Your task to perform on an android device: empty trash in google photos Image 0: 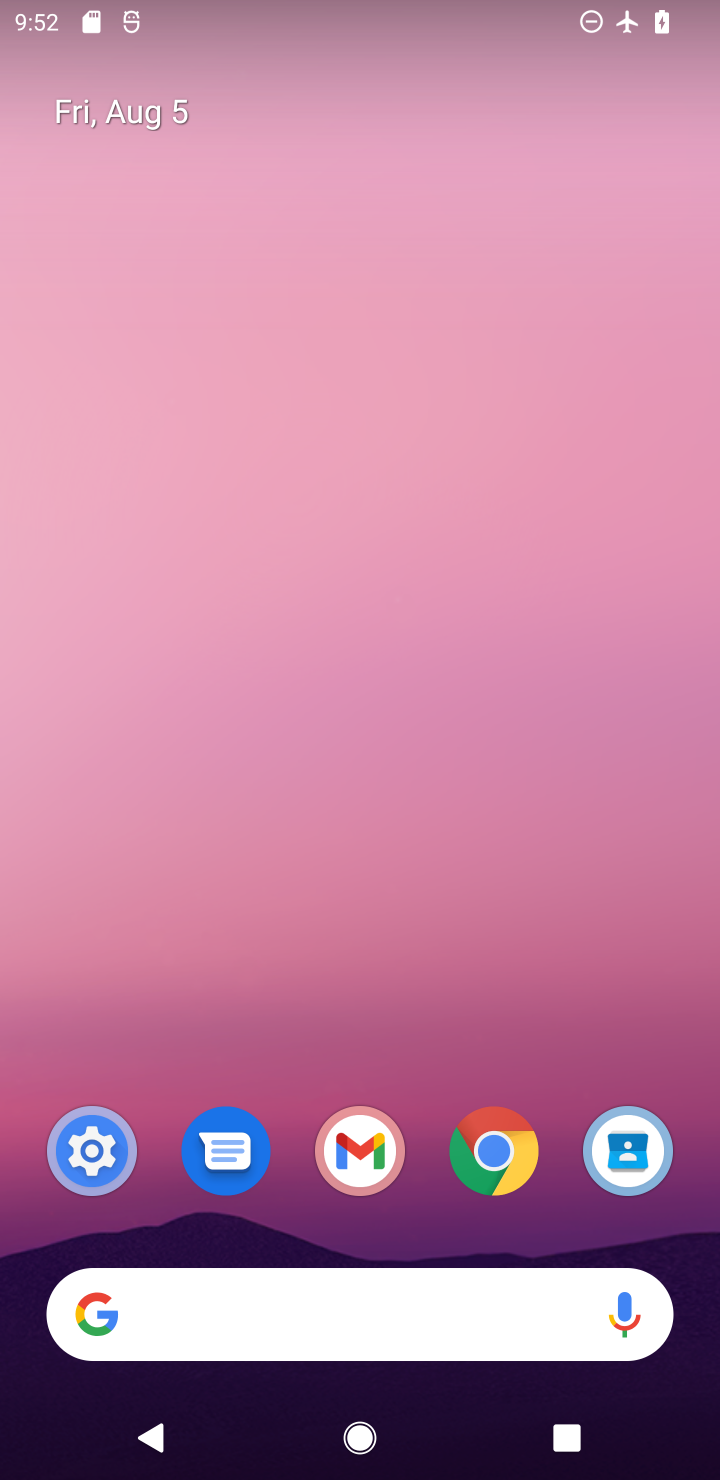
Step 0: drag from (275, 1131) to (310, 216)
Your task to perform on an android device: empty trash in google photos Image 1: 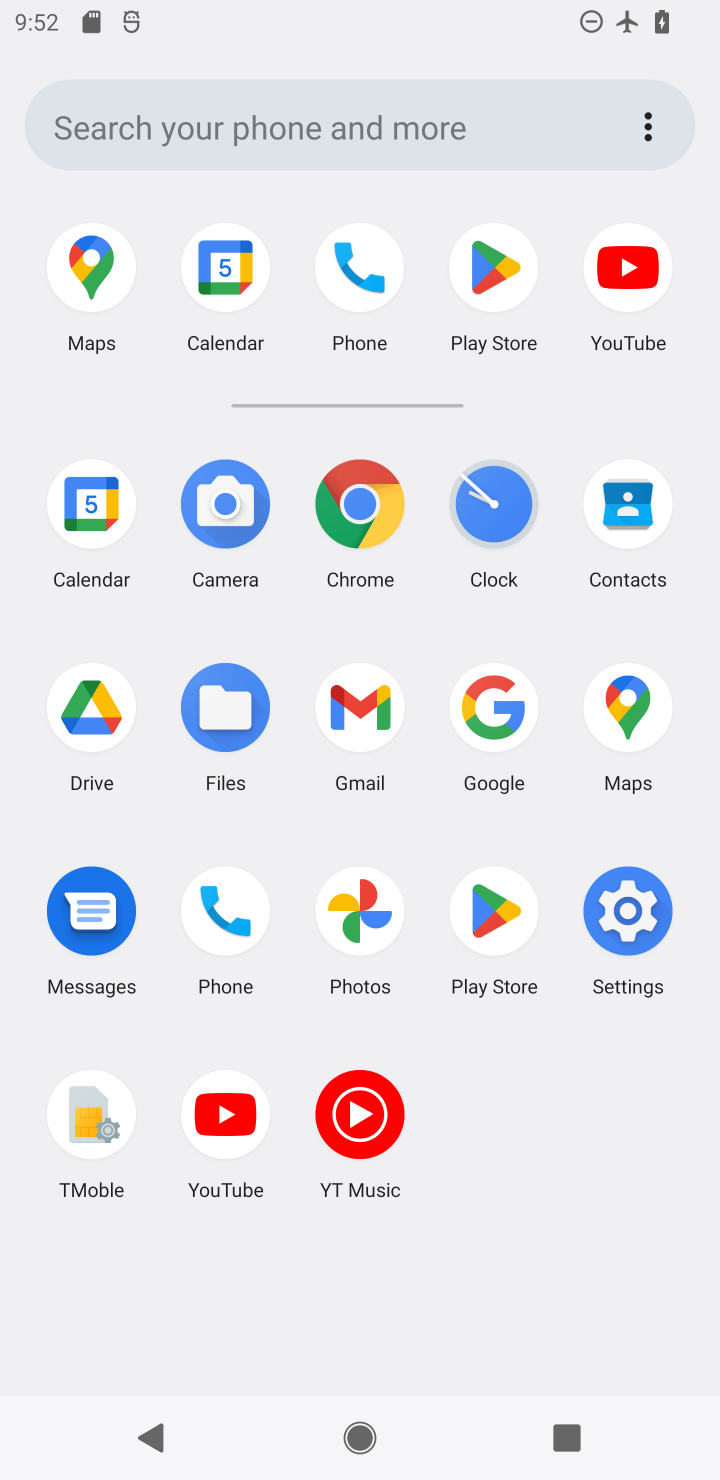
Step 1: click (364, 945)
Your task to perform on an android device: empty trash in google photos Image 2: 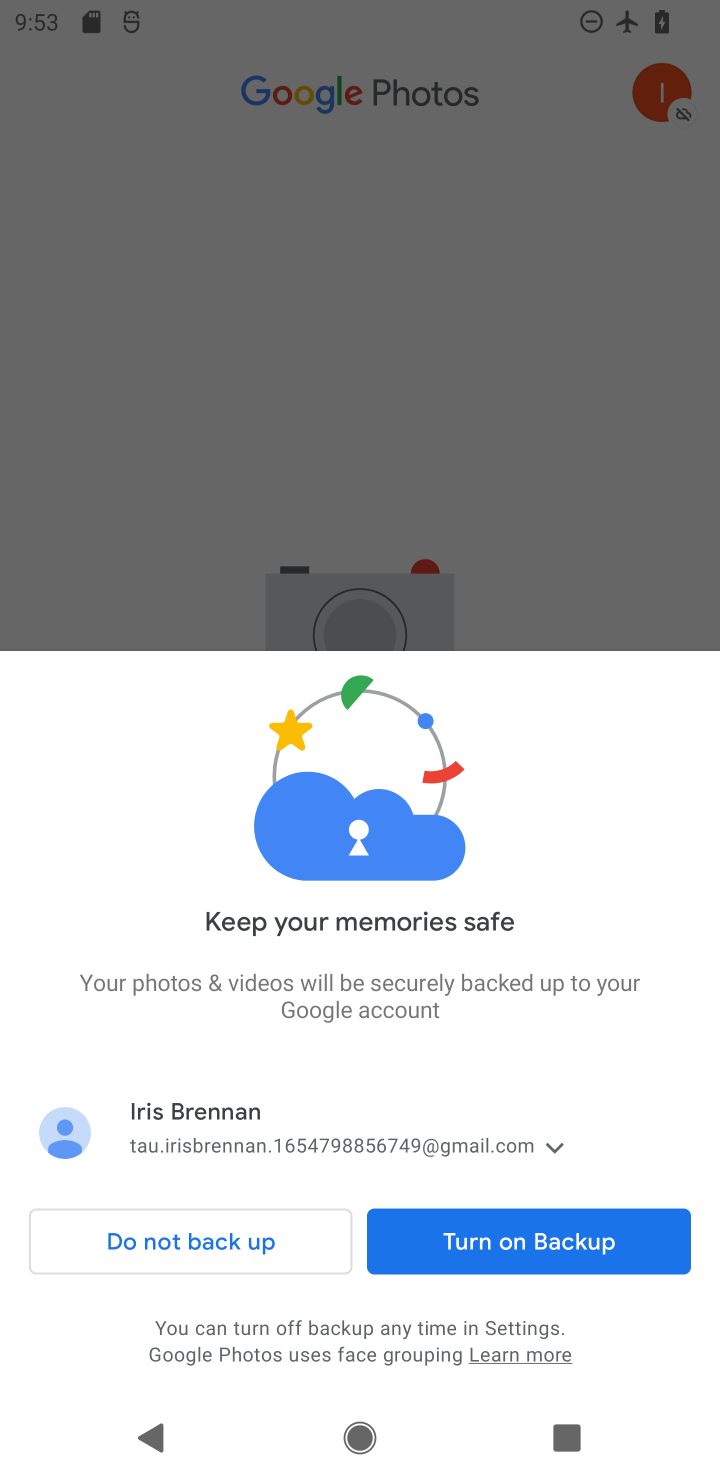
Step 2: click (537, 1237)
Your task to perform on an android device: empty trash in google photos Image 3: 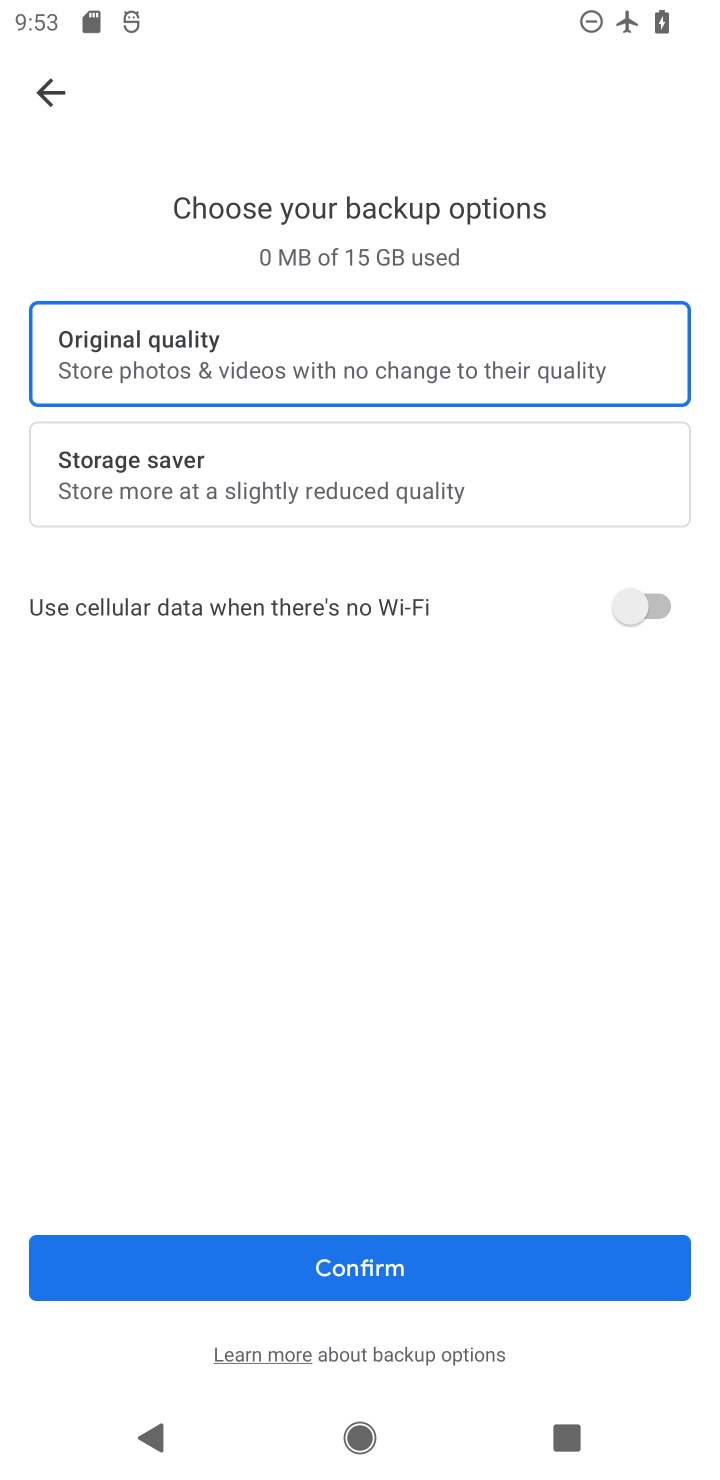
Step 3: click (454, 1239)
Your task to perform on an android device: empty trash in google photos Image 4: 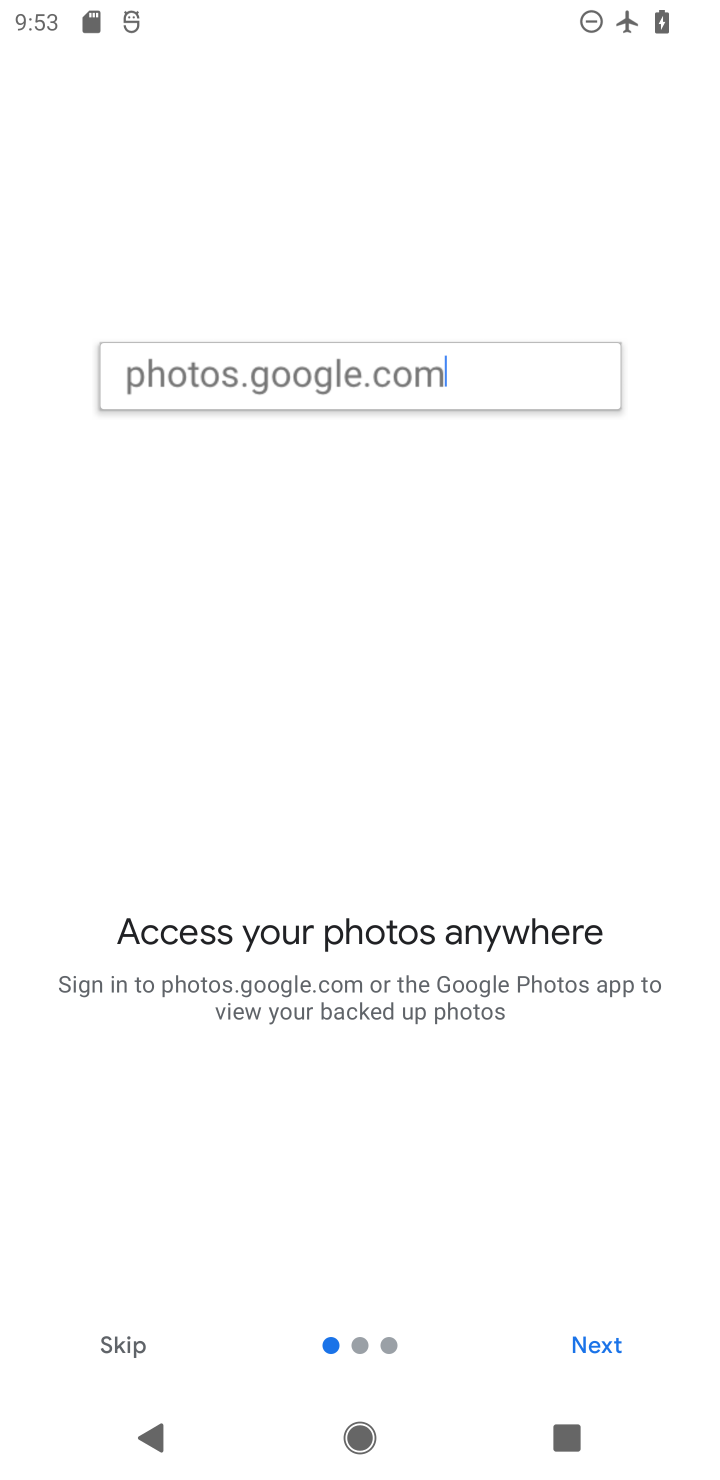
Step 4: click (592, 1344)
Your task to perform on an android device: empty trash in google photos Image 5: 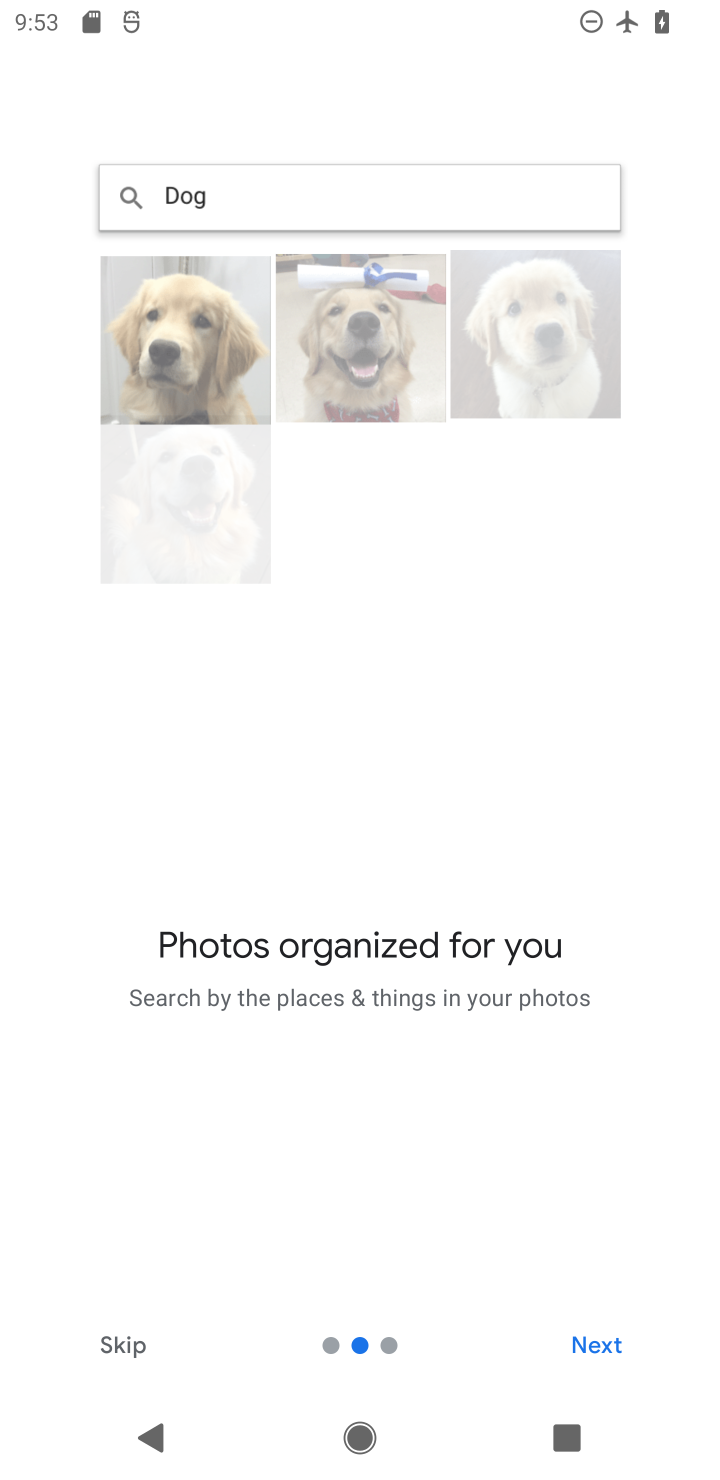
Step 5: click (592, 1344)
Your task to perform on an android device: empty trash in google photos Image 6: 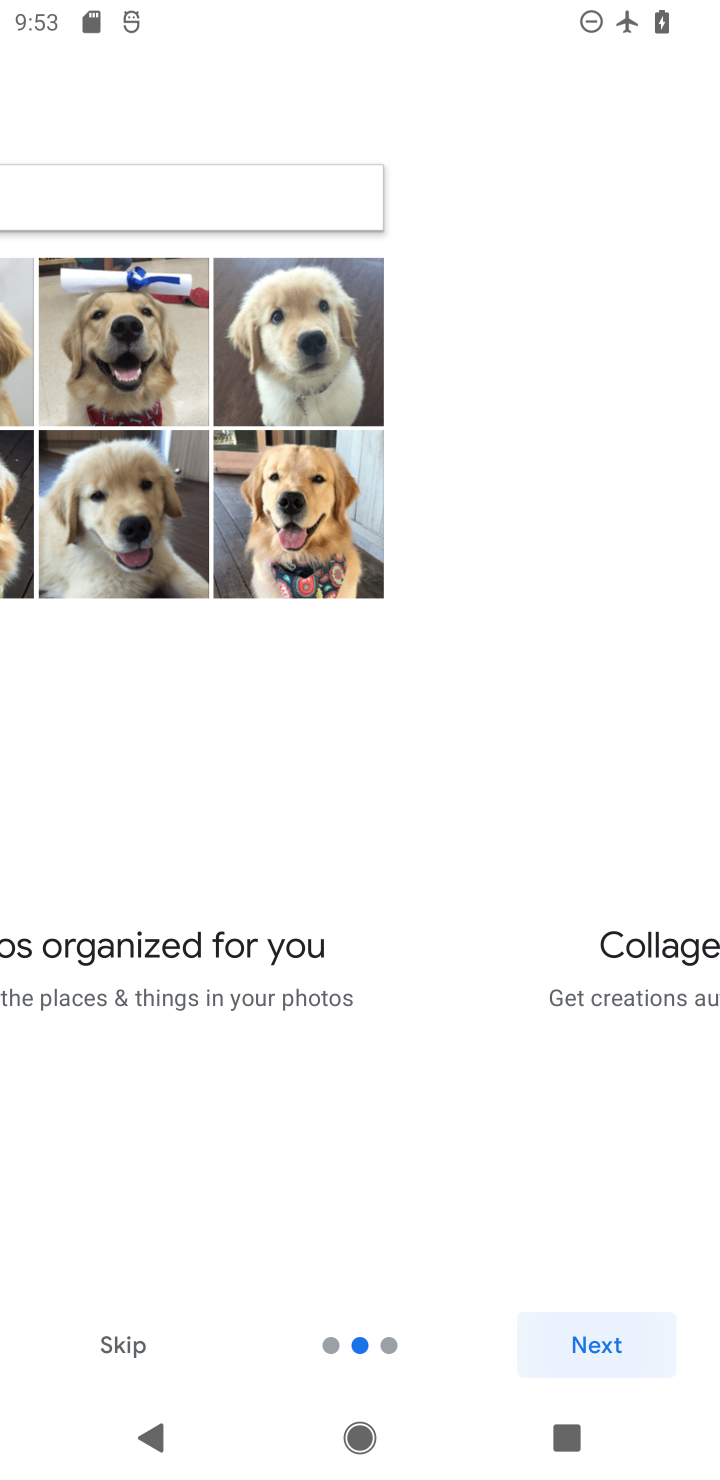
Step 6: click (592, 1344)
Your task to perform on an android device: empty trash in google photos Image 7: 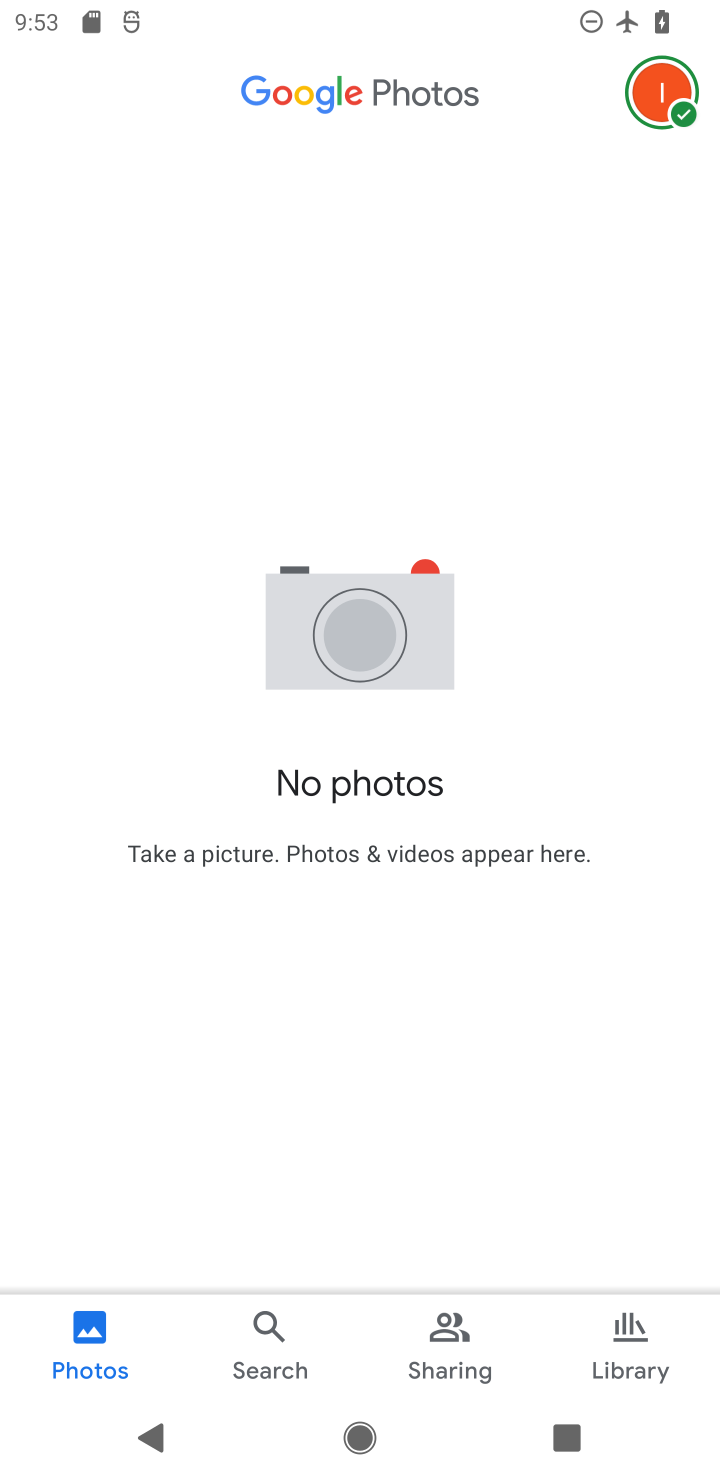
Step 7: click (592, 1344)
Your task to perform on an android device: empty trash in google photos Image 8: 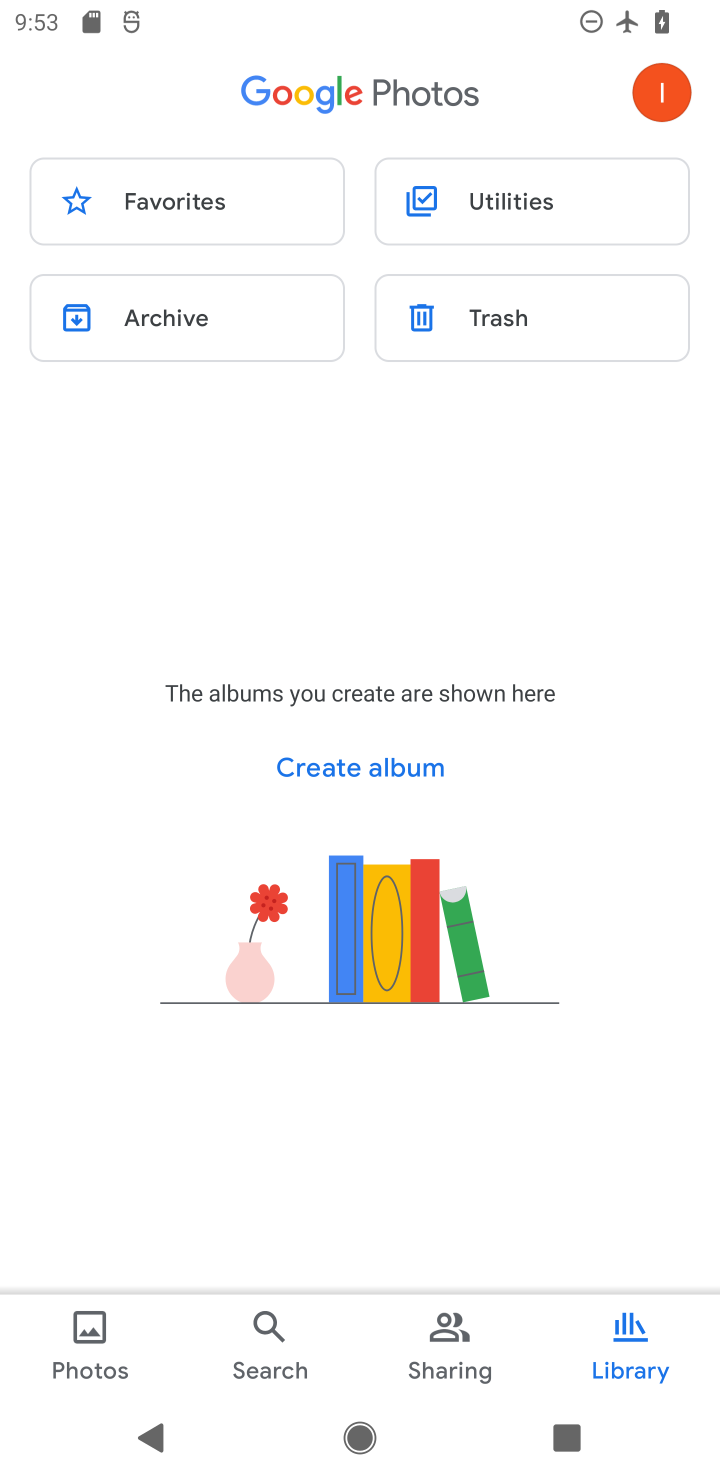
Step 8: click (82, 1349)
Your task to perform on an android device: empty trash in google photos Image 9: 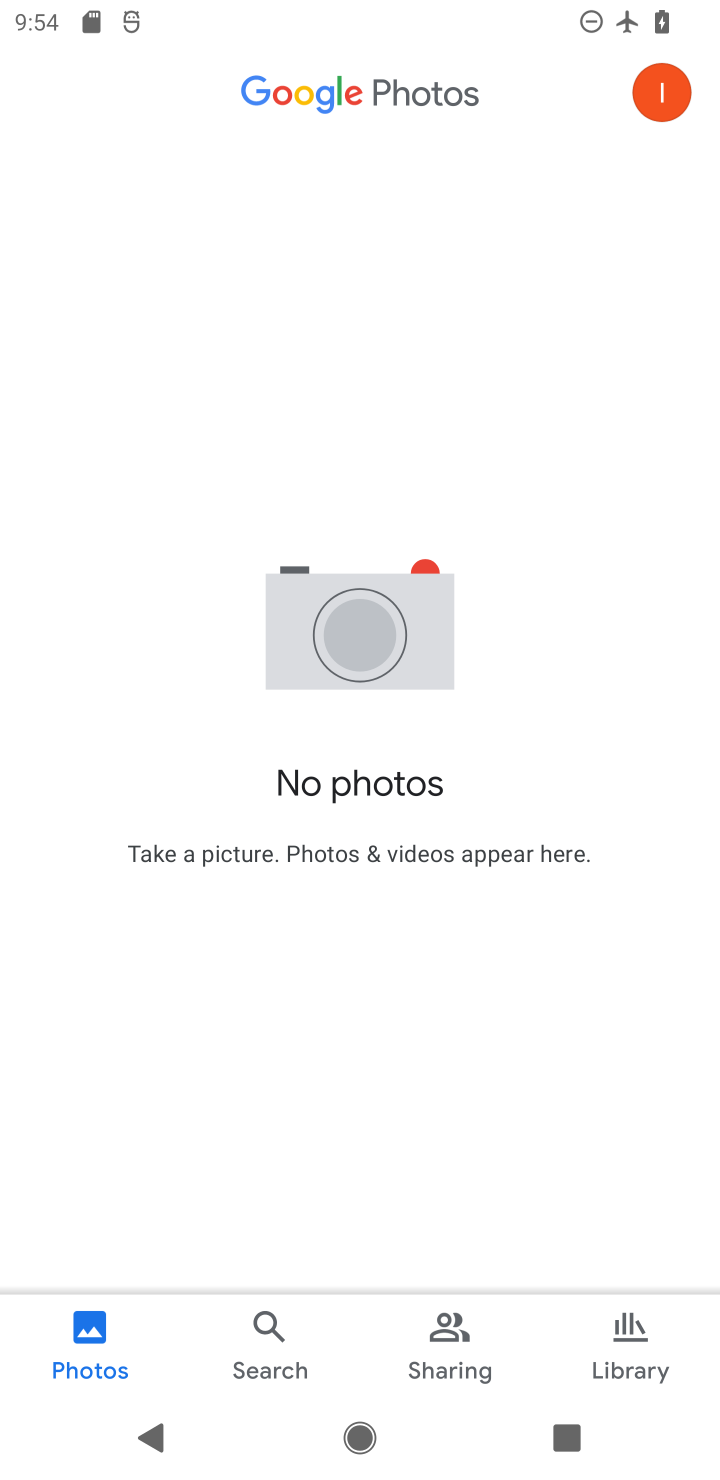
Step 9: click (647, 1344)
Your task to perform on an android device: empty trash in google photos Image 10: 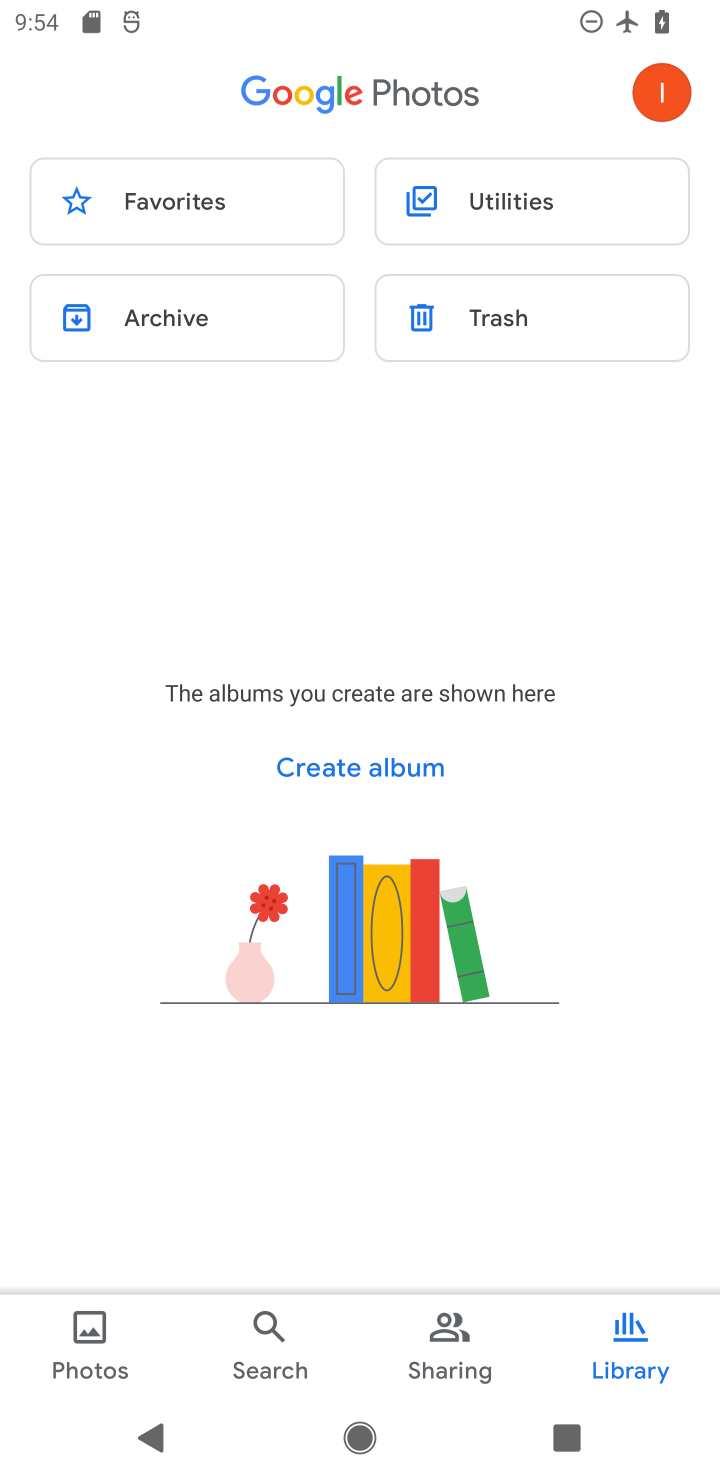
Step 10: click (488, 325)
Your task to perform on an android device: empty trash in google photos Image 11: 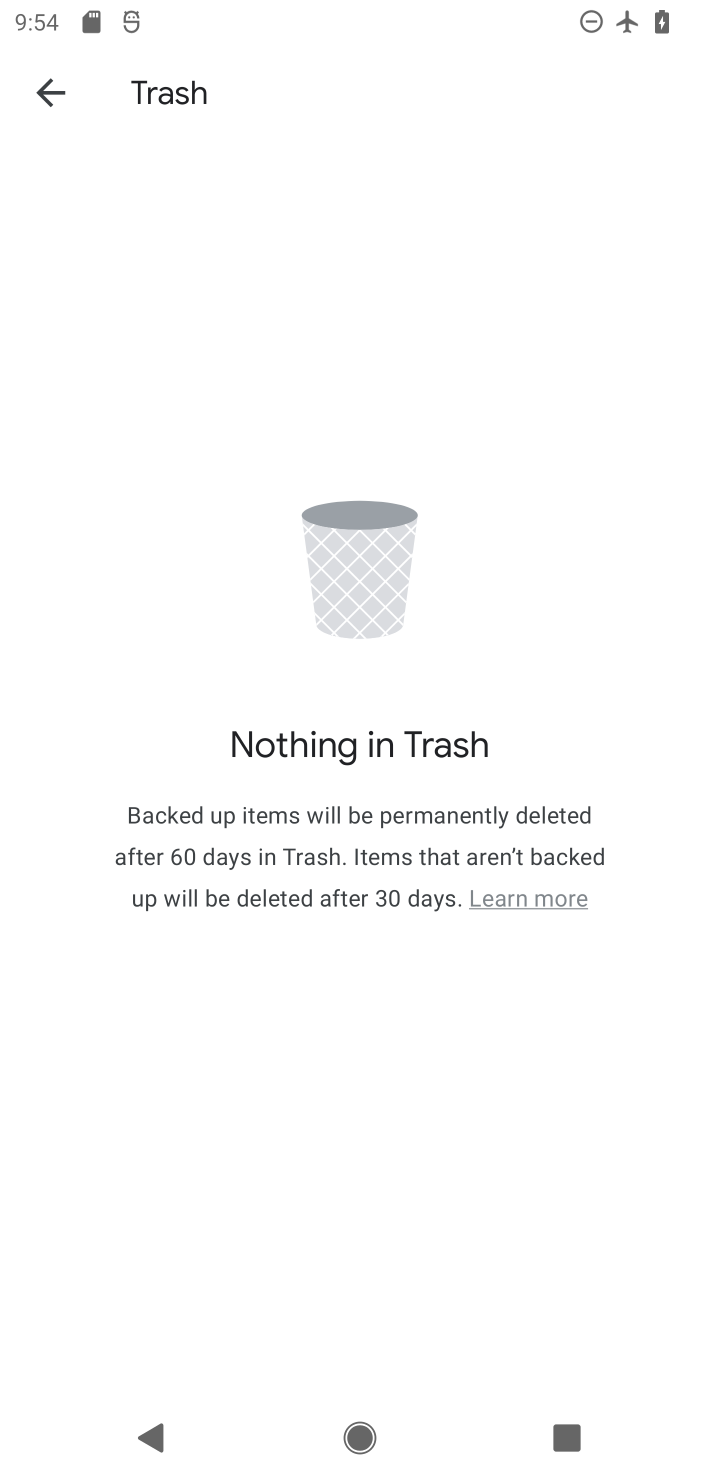
Step 11: task complete